Your task to perform on an android device: toggle pop-ups in chrome Image 0: 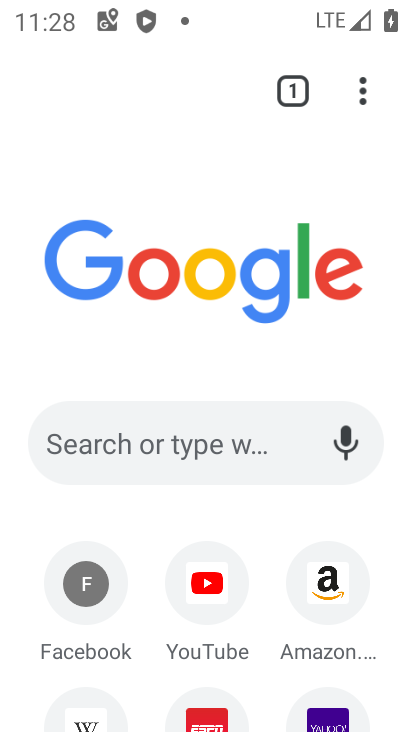
Step 0: click (369, 81)
Your task to perform on an android device: toggle pop-ups in chrome Image 1: 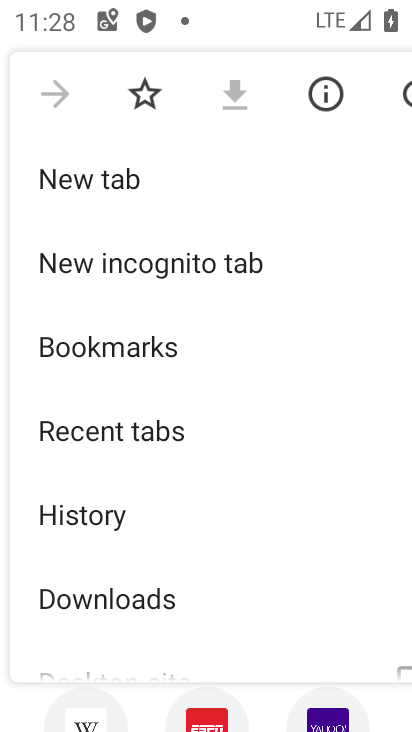
Step 1: drag from (177, 516) to (130, 106)
Your task to perform on an android device: toggle pop-ups in chrome Image 2: 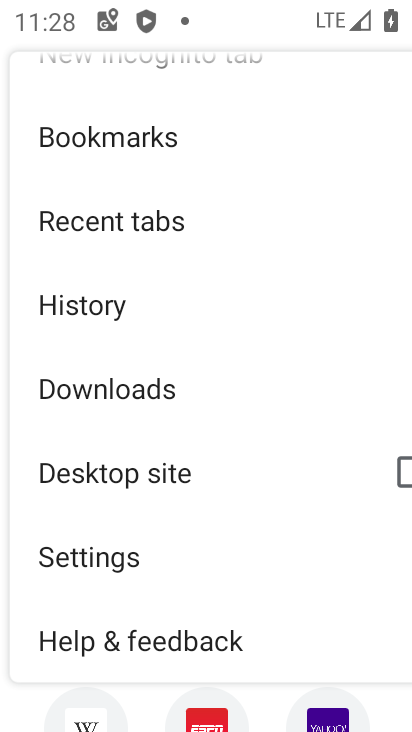
Step 2: click (107, 558)
Your task to perform on an android device: toggle pop-ups in chrome Image 3: 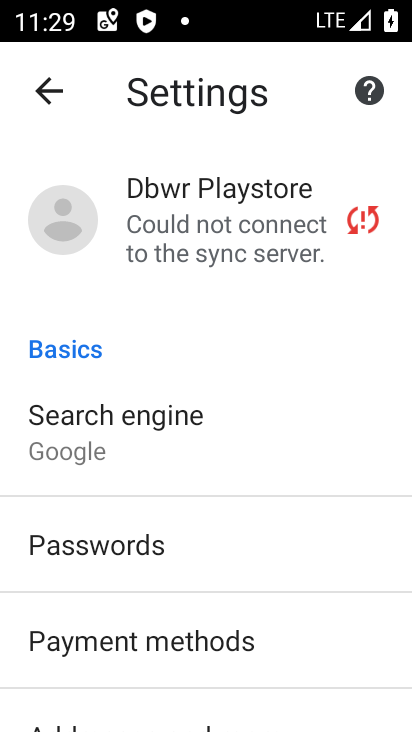
Step 3: drag from (218, 542) to (148, 165)
Your task to perform on an android device: toggle pop-ups in chrome Image 4: 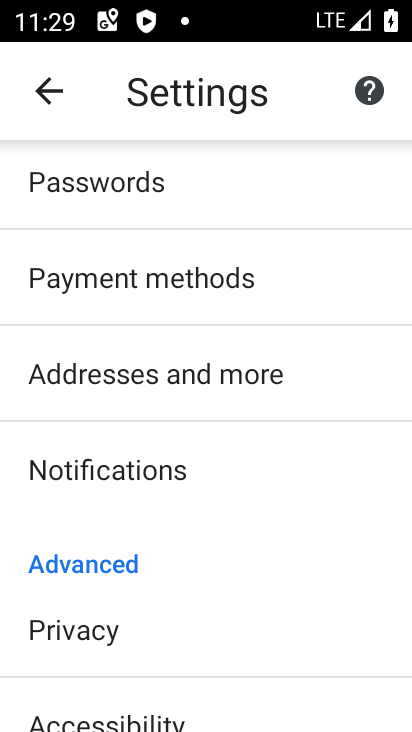
Step 4: drag from (189, 559) to (166, 71)
Your task to perform on an android device: toggle pop-ups in chrome Image 5: 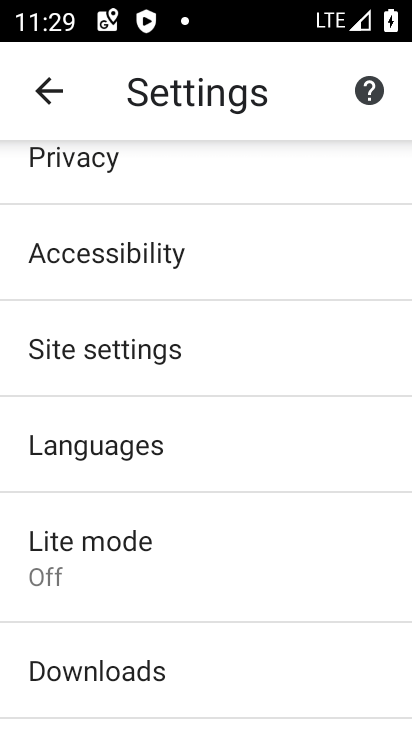
Step 5: click (55, 378)
Your task to perform on an android device: toggle pop-ups in chrome Image 6: 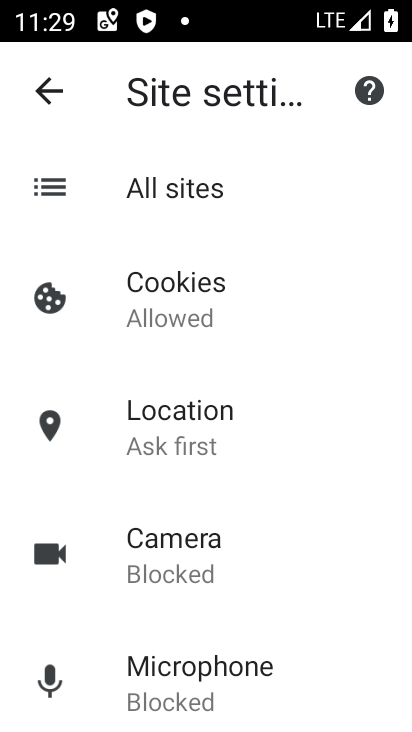
Step 6: drag from (257, 611) to (239, 230)
Your task to perform on an android device: toggle pop-ups in chrome Image 7: 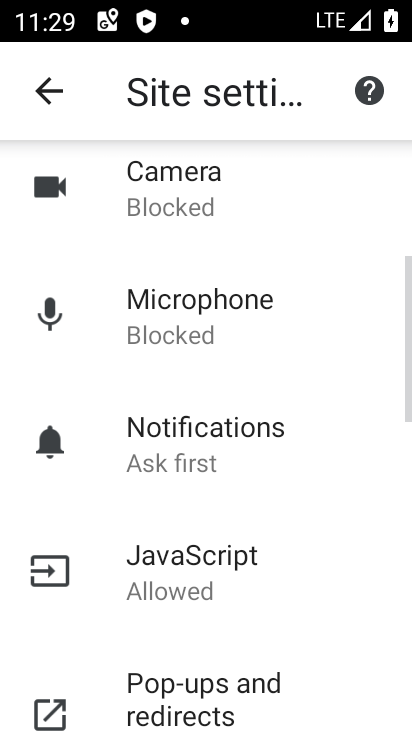
Step 7: drag from (228, 238) to (221, 576)
Your task to perform on an android device: toggle pop-ups in chrome Image 8: 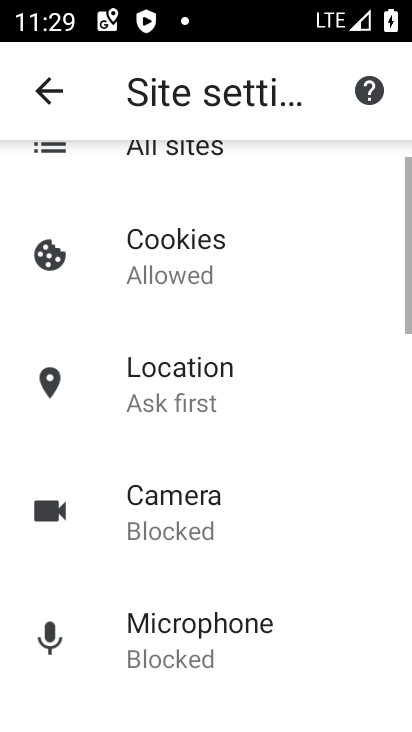
Step 8: drag from (222, 563) to (159, 146)
Your task to perform on an android device: toggle pop-ups in chrome Image 9: 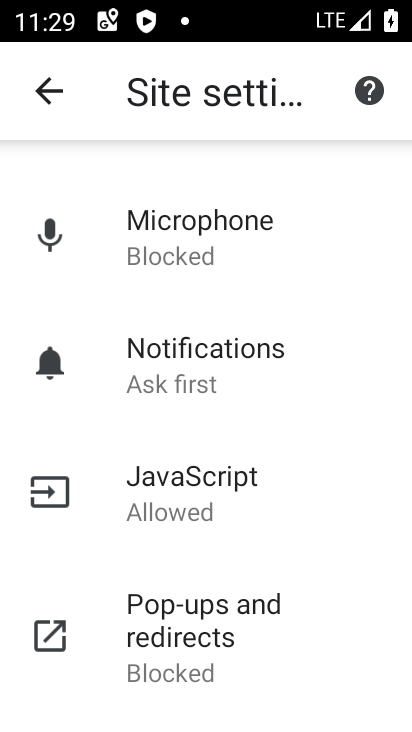
Step 9: click (198, 589)
Your task to perform on an android device: toggle pop-ups in chrome Image 10: 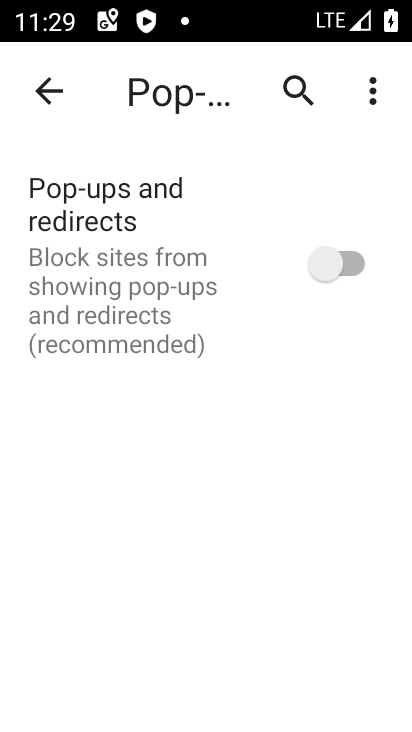
Step 10: click (332, 273)
Your task to perform on an android device: toggle pop-ups in chrome Image 11: 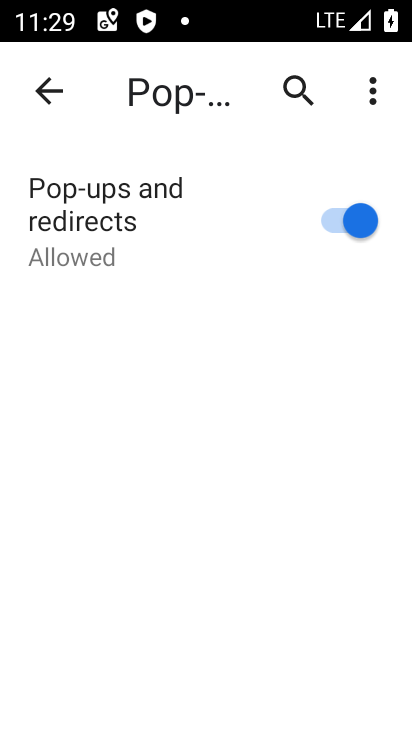
Step 11: task complete